Your task to perform on an android device: Open the Play Movies app and select the watchlist tab. Image 0: 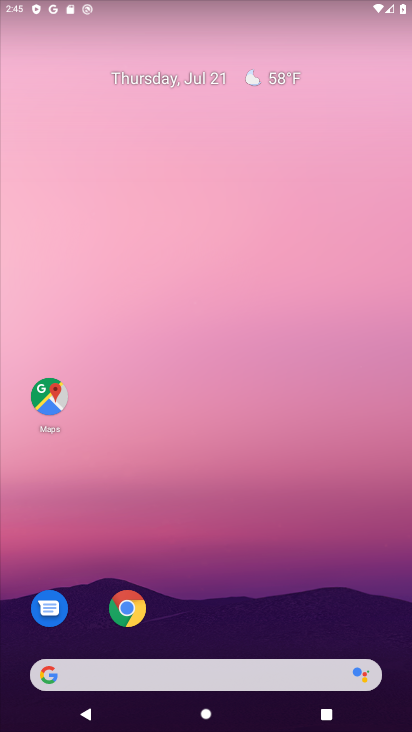
Step 0: press home button
Your task to perform on an android device: Open the Play Movies app and select the watchlist tab. Image 1: 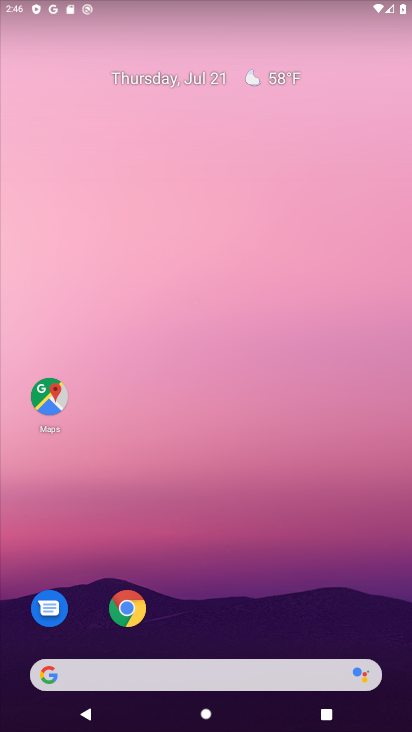
Step 1: drag from (206, 640) to (242, 112)
Your task to perform on an android device: Open the Play Movies app and select the watchlist tab. Image 2: 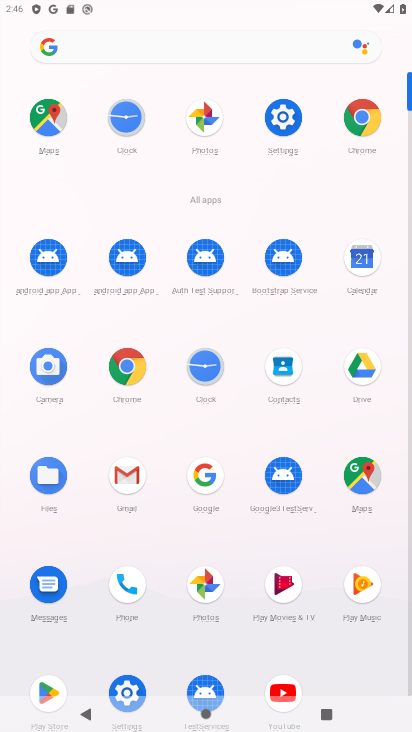
Step 2: click (281, 579)
Your task to perform on an android device: Open the Play Movies app and select the watchlist tab. Image 3: 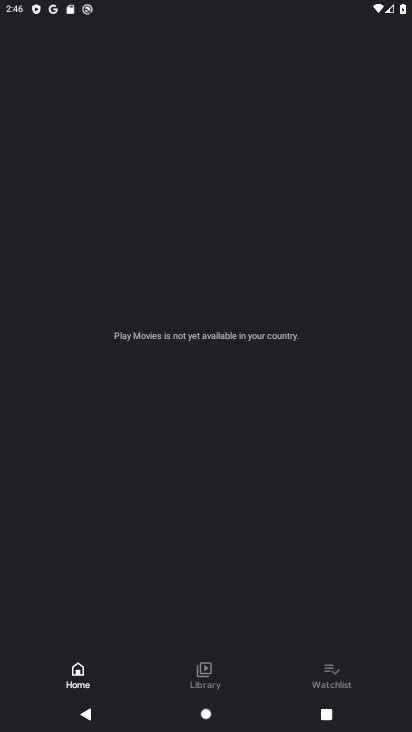
Step 3: click (332, 668)
Your task to perform on an android device: Open the Play Movies app and select the watchlist tab. Image 4: 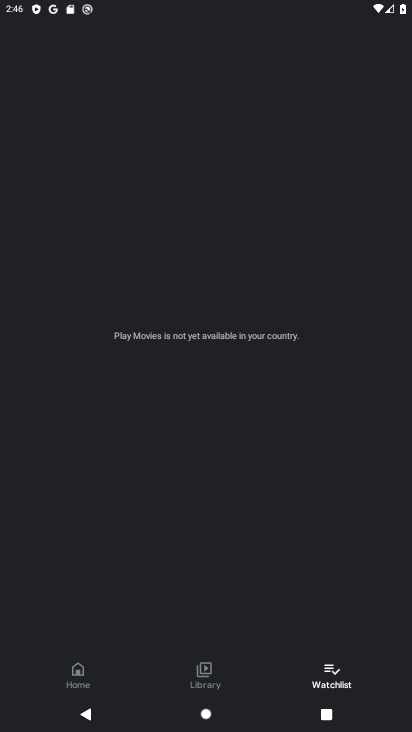
Step 4: task complete